Your task to perform on an android device: visit the assistant section in the google photos Image 0: 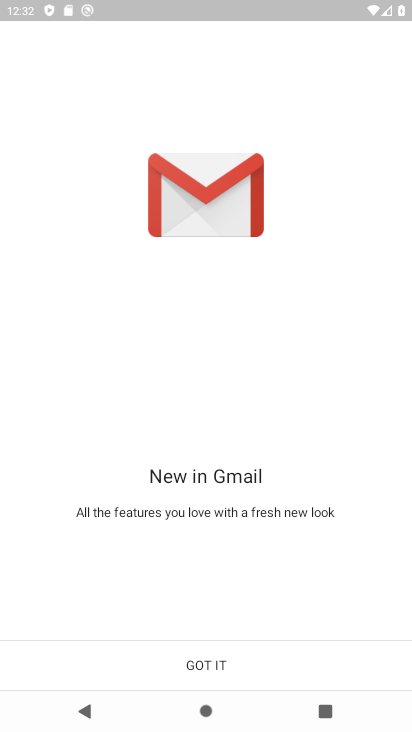
Step 0: click (194, 664)
Your task to perform on an android device: visit the assistant section in the google photos Image 1: 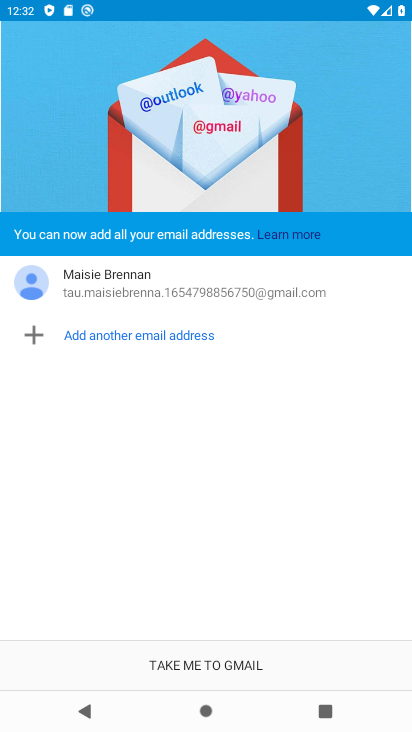
Step 1: click (178, 670)
Your task to perform on an android device: visit the assistant section in the google photos Image 2: 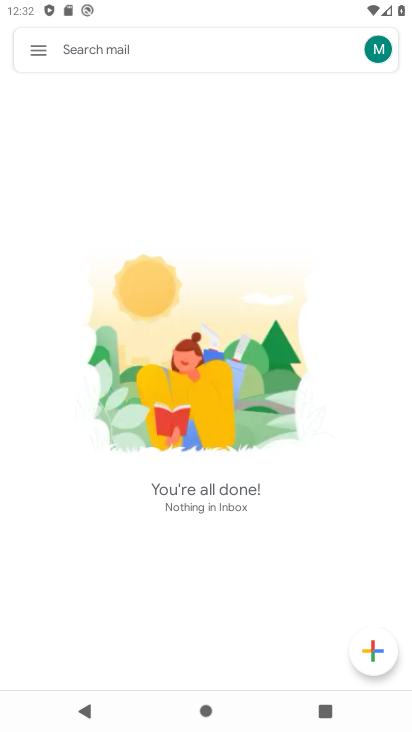
Step 2: press home button
Your task to perform on an android device: visit the assistant section in the google photos Image 3: 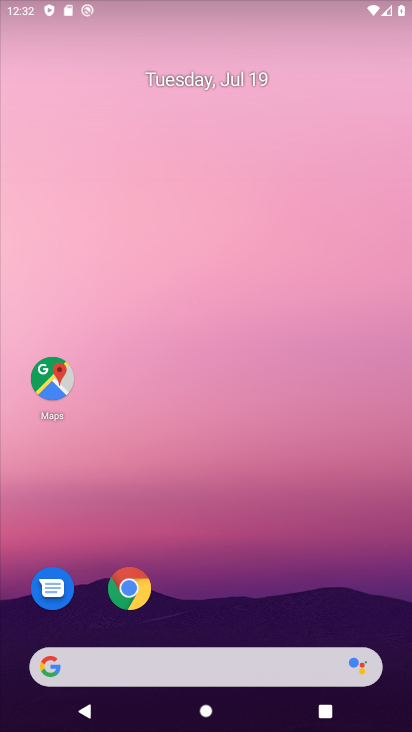
Step 3: drag from (324, 567) to (325, 0)
Your task to perform on an android device: visit the assistant section in the google photos Image 4: 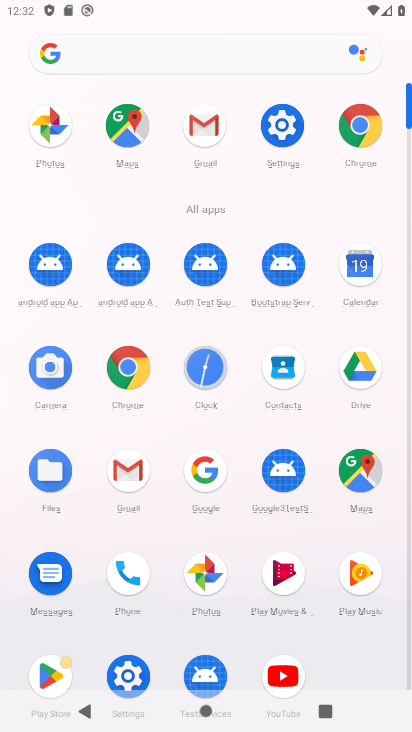
Step 4: click (51, 134)
Your task to perform on an android device: visit the assistant section in the google photos Image 5: 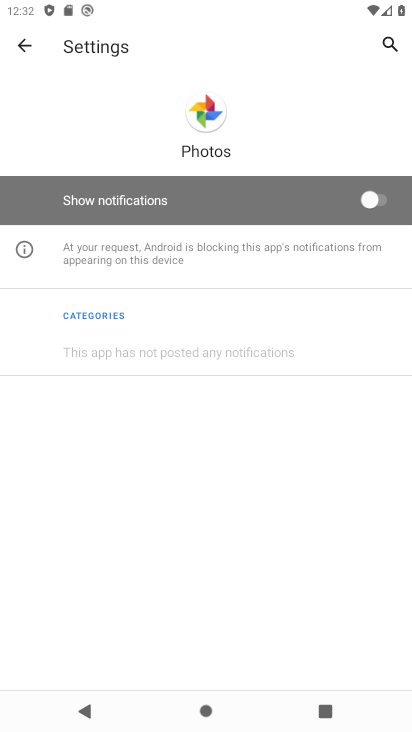
Step 5: click (10, 49)
Your task to perform on an android device: visit the assistant section in the google photos Image 6: 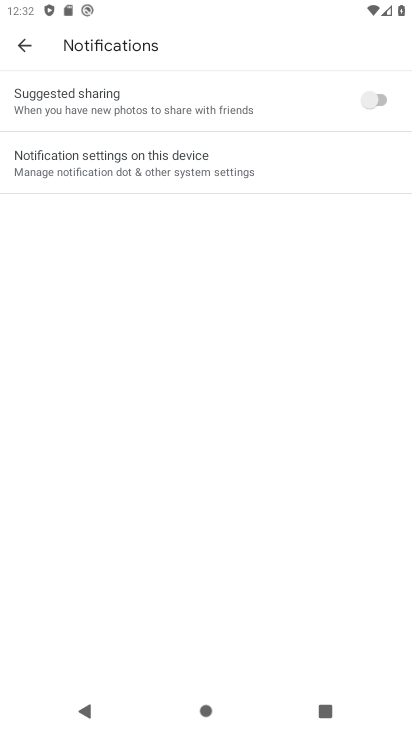
Step 6: click (10, 49)
Your task to perform on an android device: visit the assistant section in the google photos Image 7: 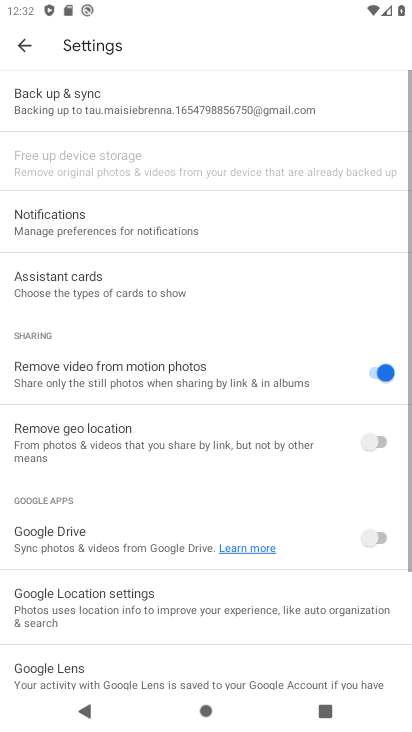
Step 7: click (26, 54)
Your task to perform on an android device: visit the assistant section in the google photos Image 8: 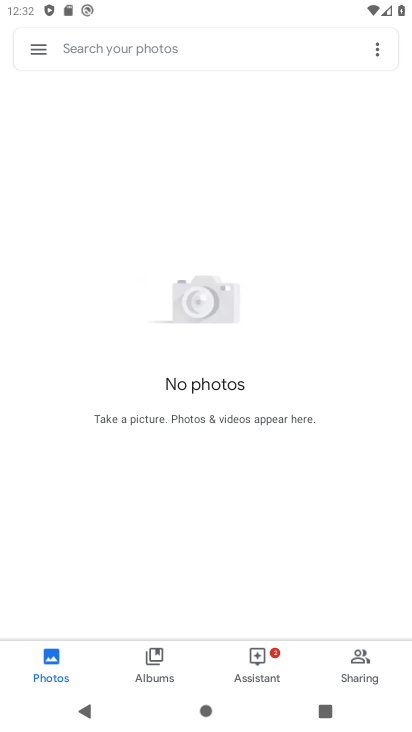
Step 8: click (244, 663)
Your task to perform on an android device: visit the assistant section in the google photos Image 9: 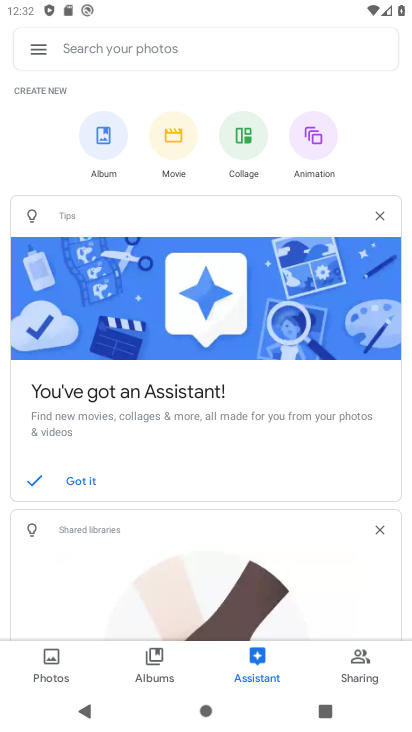
Step 9: task complete